Your task to perform on an android device: toggle airplane mode Image 0: 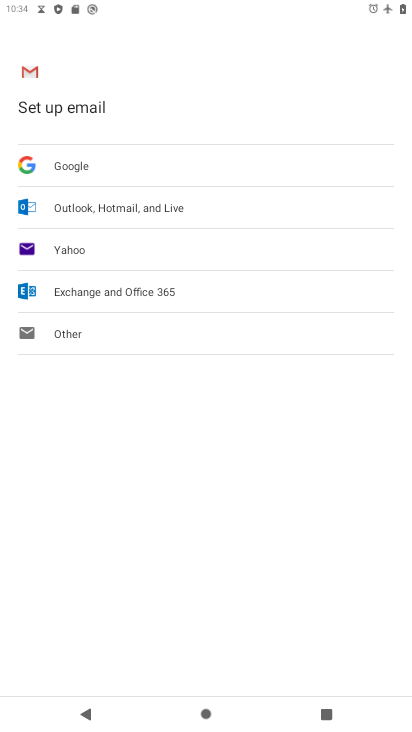
Step 0: press home button
Your task to perform on an android device: toggle airplane mode Image 1: 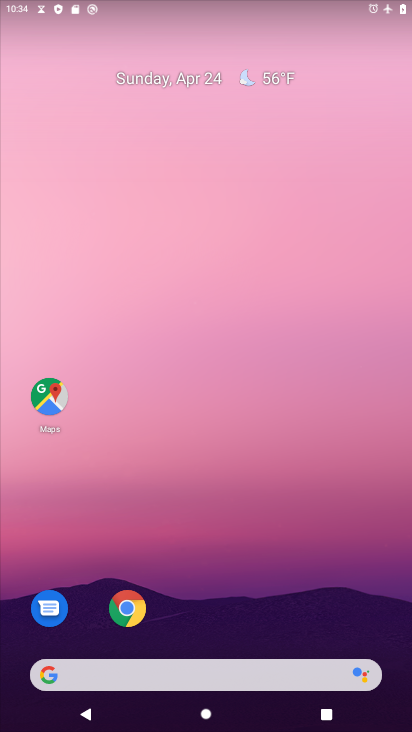
Step 1: drag from (198, 617) to (117, 4)
Your task to perform on an android device: toggle airplane mode Image 2: 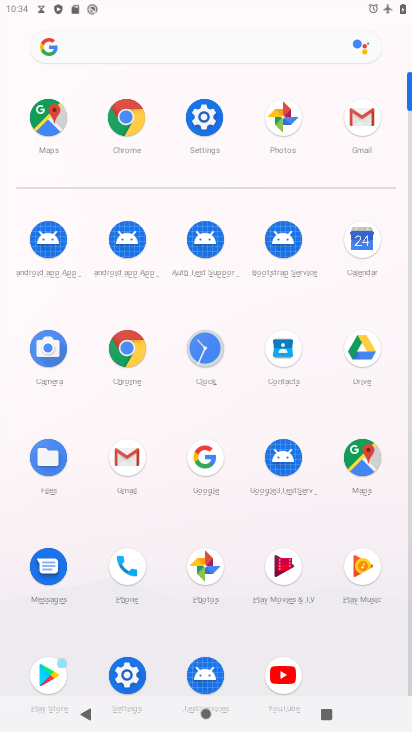
Step 2: click (201, 132)
Your task to perform on an android device: toggle airplane mode Image 3: 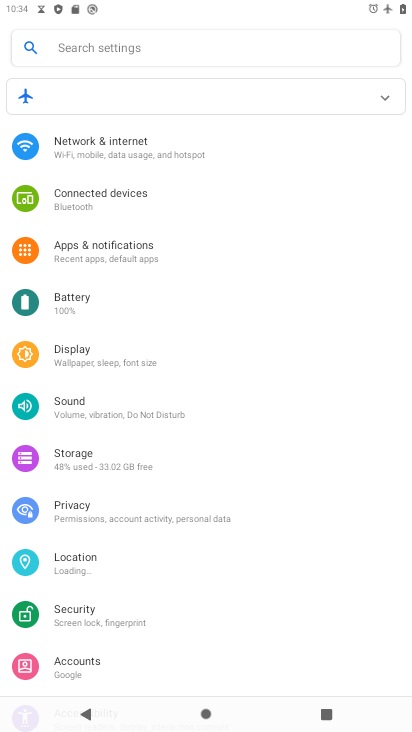
Step 3: click (196, 119)
Your task to perform on an android device: toggle airplane mode Image 4: 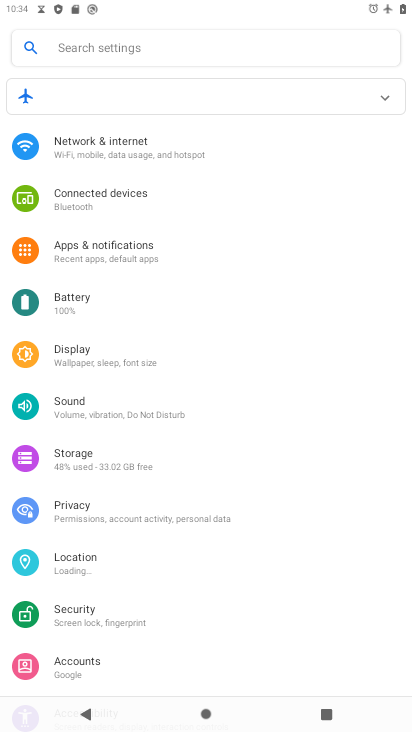
Step 4: click (181, 125)
Your task to perform on an android device: toggle airplane mode Image 5: 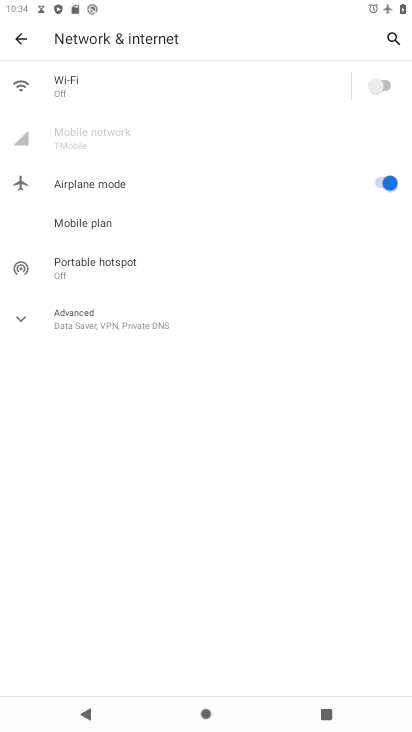
Step 5: click (404, 182)
Your task to perform on an android device: toggle airplane mode Image 6: 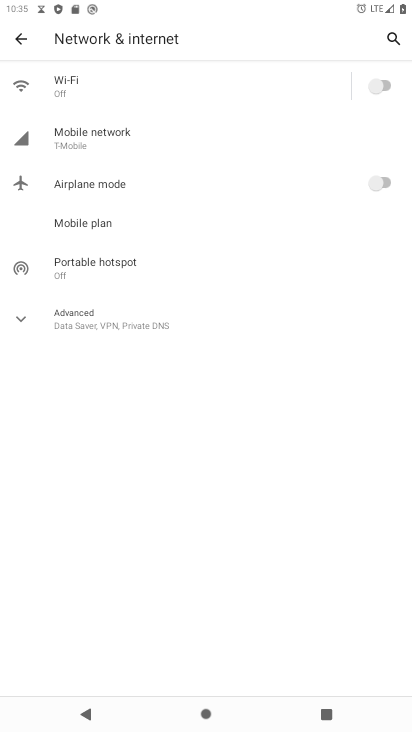
Step 6: task complete